Your task to perform on an android device: Turn on the flashlight Image 0: 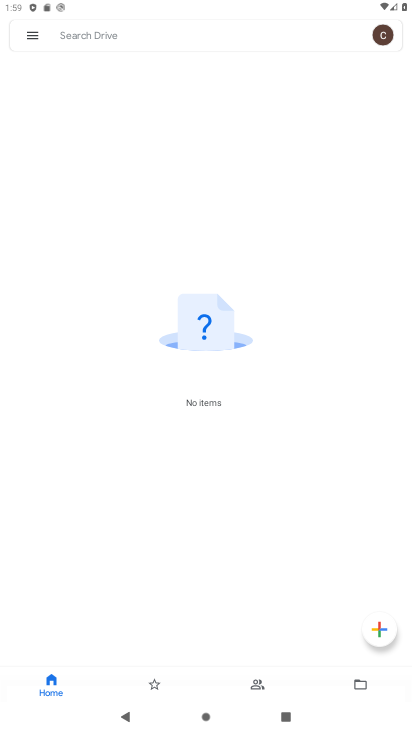
Step 0: press home button
Your task to perform on an android device: Turn on the flashlight Image 1: 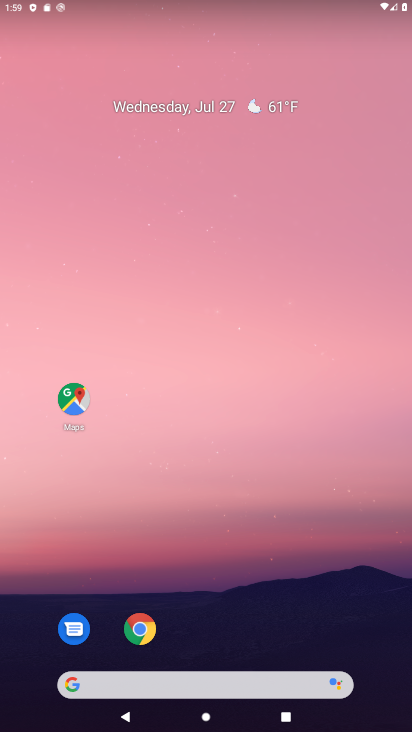
Step 1: drag from (170, 683) to (119, 176)
Your task to perform on an android device: Turn on the flashlight Image 2: 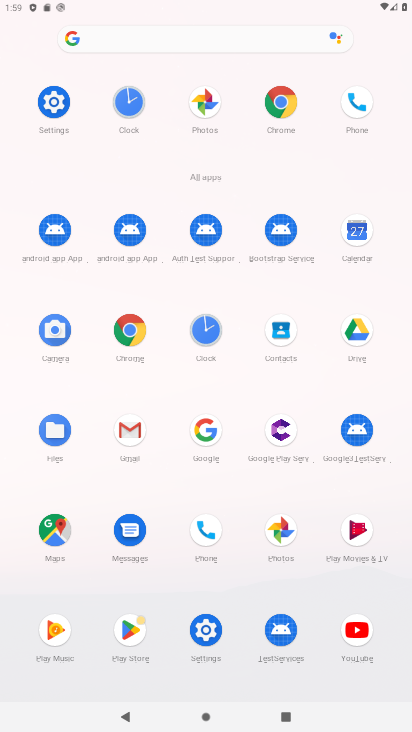
Step 2: click (57, 102)
Your task to perform on an android device: Turn on the flashlight Image 3: 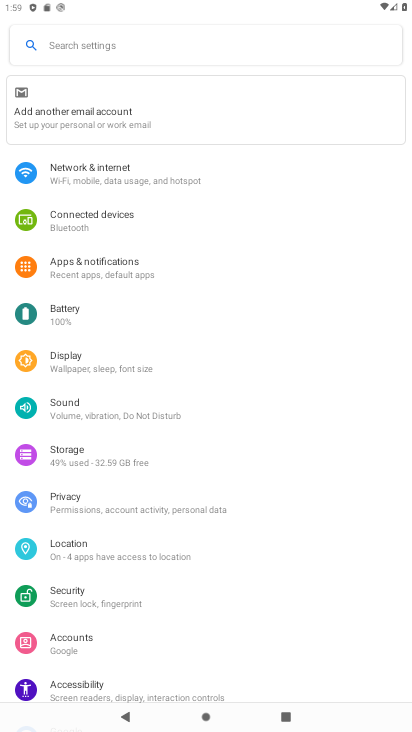
Step 3: click (127, 505)
Your task to perform on an android device: Turn on the flashlight Image 4: 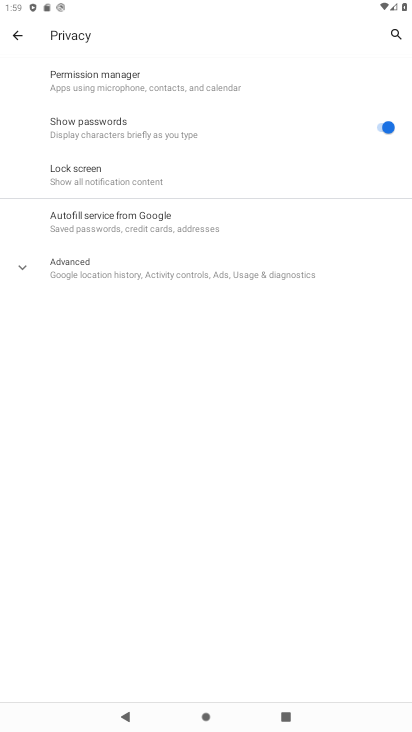
Step 4: click (126, 259)
Your task to perform on an android device: Turn on the flashlight Image 5: 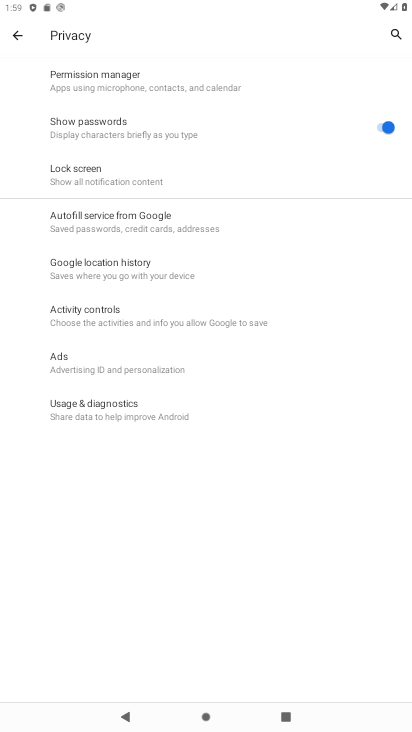
Step 5: press back button
Your task to perform on an android device: Turn on the flashlight Image 6: 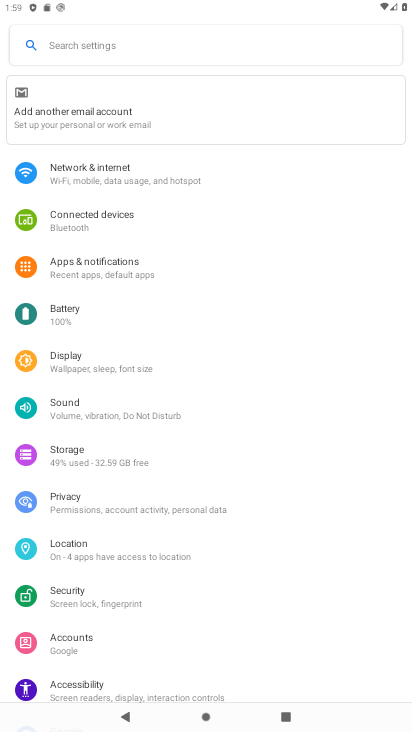
Step 6: click (97, 265)
Your task to perform on an android device: Turn on the flashlight Image 7: 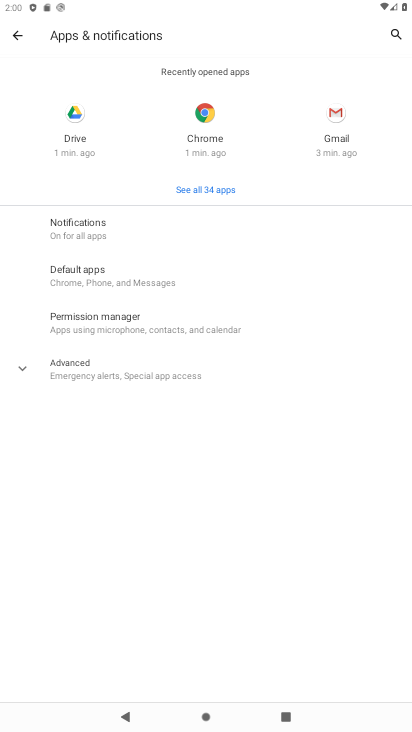
Step 7: press back button
Your task to perform on an android device: Turn on the flashlight Image 8: 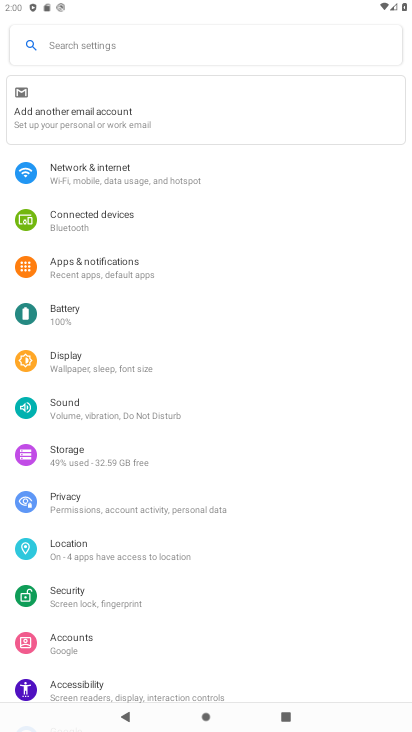
Step 8: click (67, 314)
Your task to perform on an android device: Turn on the flashlight Image 9: 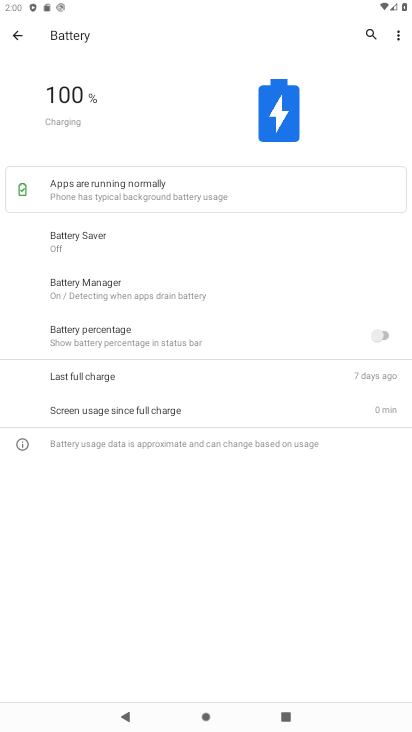
Step 9: press back button
Your task to perform on an android device: Turn on the flashlight Image 10: 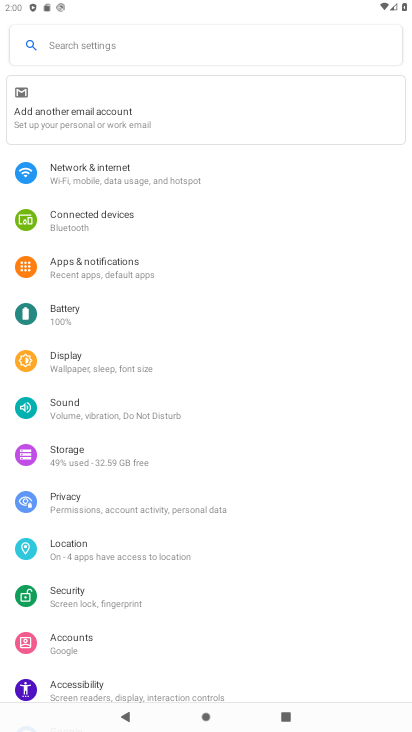
Step 10: click (120, 371)
Your task to perform on an android device: Turn on the flashlight Image 11: 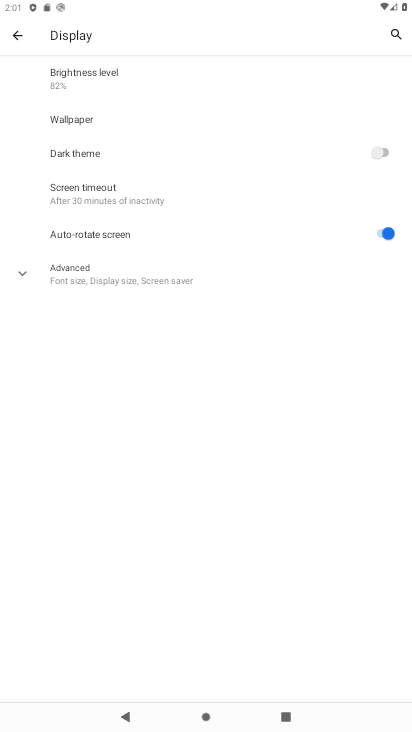
Step 11: task complete